Your task to perform on an android device: Show the shopping cart on target. Search for "lg ultragear" on target, select the first entry, add it to the cart, then select checkout. Image 0: 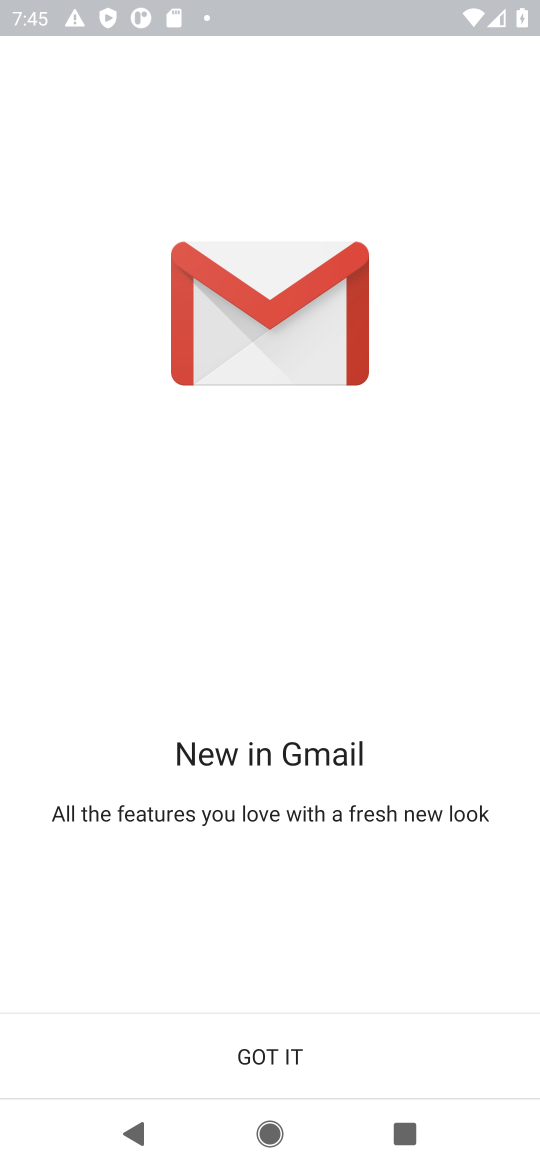
Step 0: click (257, 1053)
Your task to perform on an android device: Show the shopping cart on target. Search for "lg ultragear" on target, select the first entry, add it to the cart, then select checkout. Image 1: 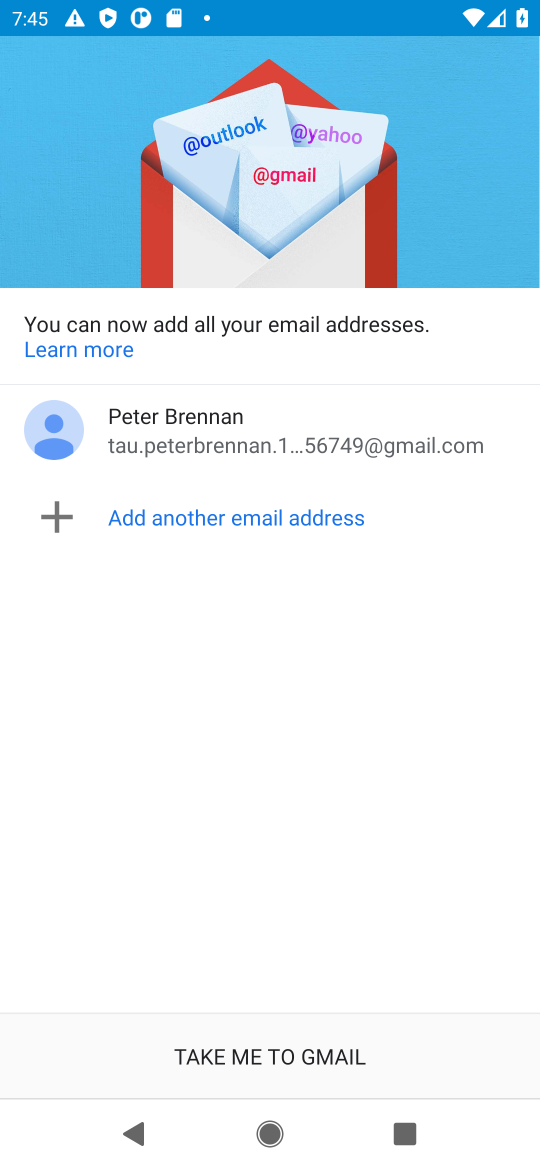
Step 1: press home button
Your task to perform on an android device: Show the shopping cart on target. Search for "lg ultragear" on target, select the first entry, add it to the cart, then select checkout. Image 2: 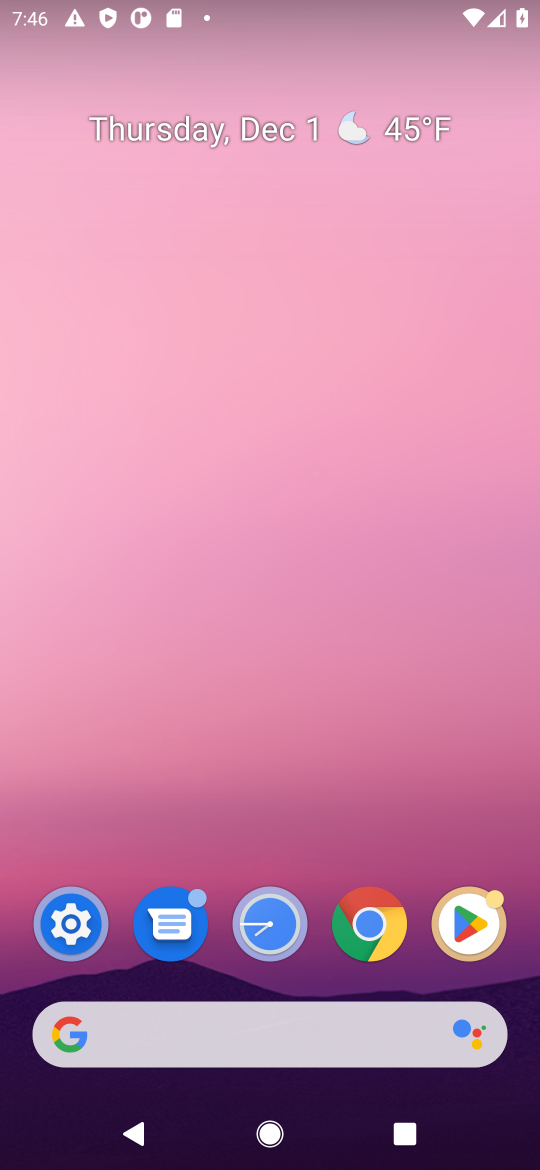
Step 2: click (257, 1023)
Your task to perform on an android device: Show the shopping cart on target. Search for "lg ultragear" on target, select the first entry, add it to the cart, then select checkout. Image 3: 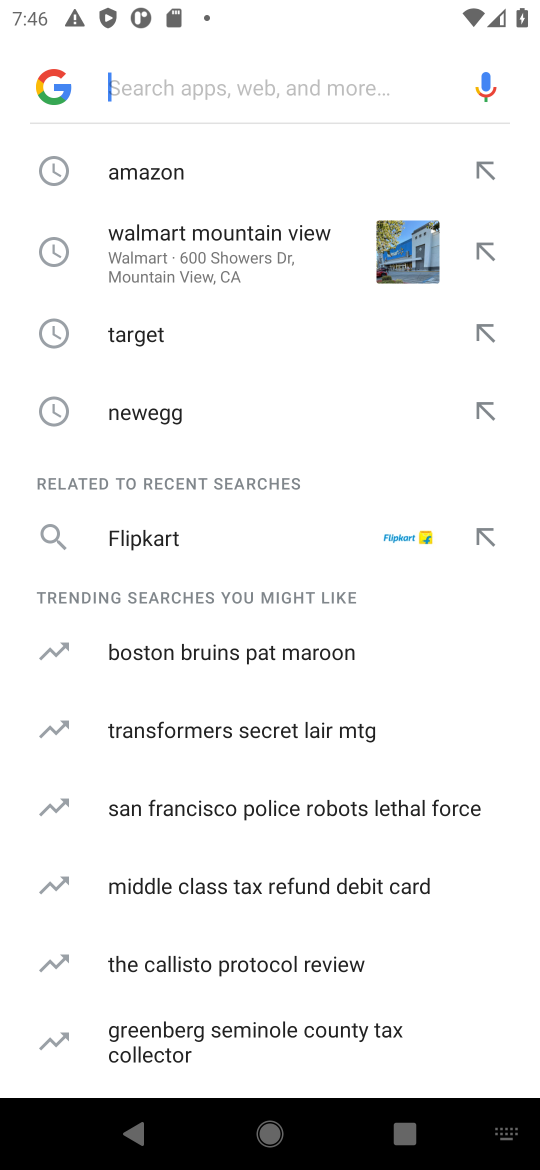
Step 3: type "target"
Your task to perform on an android device: Show the shopping cart on target. Search for "lg ultragear" on target, select the first entry, add it to the cart, then select checkout. Image 4: 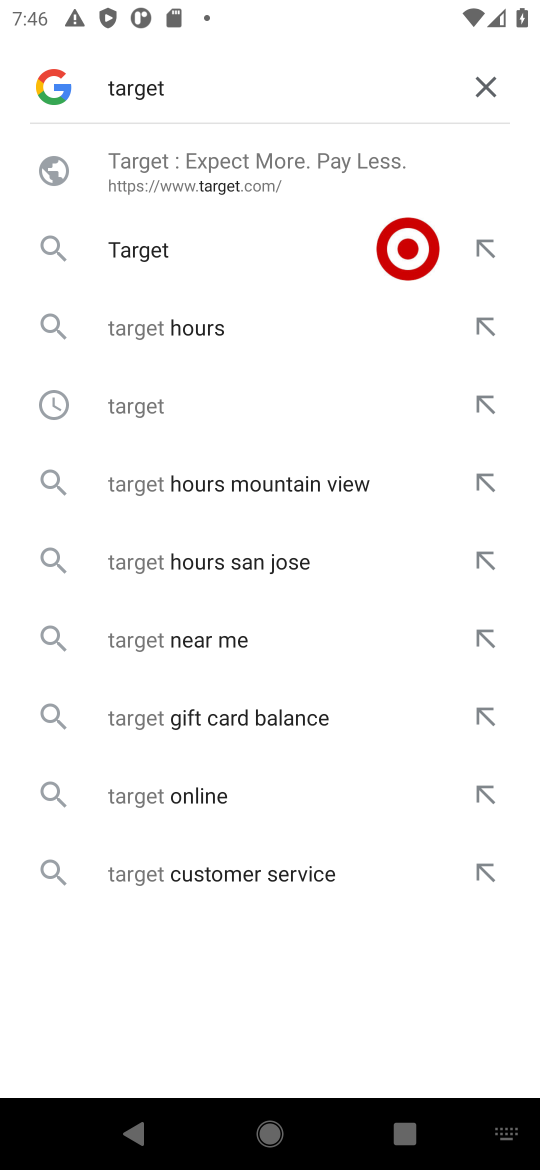
Step 4: click (136, 237)
Your task to perform on an android device: Show the shopping cart on target. Search for "lg ultragear" on target, select the first entry, add it to the cart, then select checkout. Image 5: 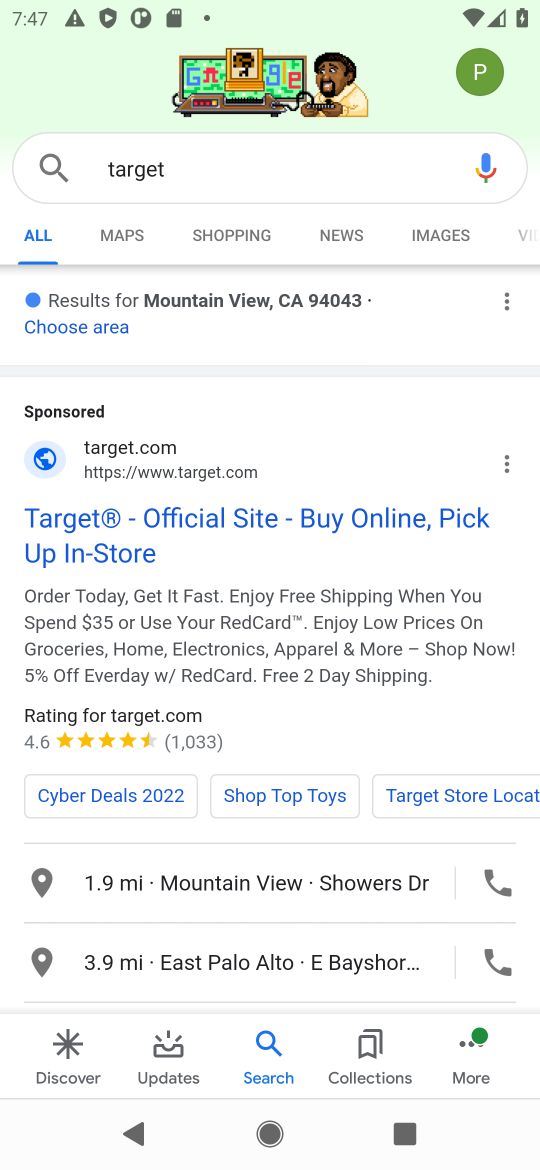
Step 5: click (195, 552)
Your task to perform on an android device: Show the shopping cart on target. Search for "lg ultragear" on target, select the first entry, add it to the cart, then select checkout. Image 6: 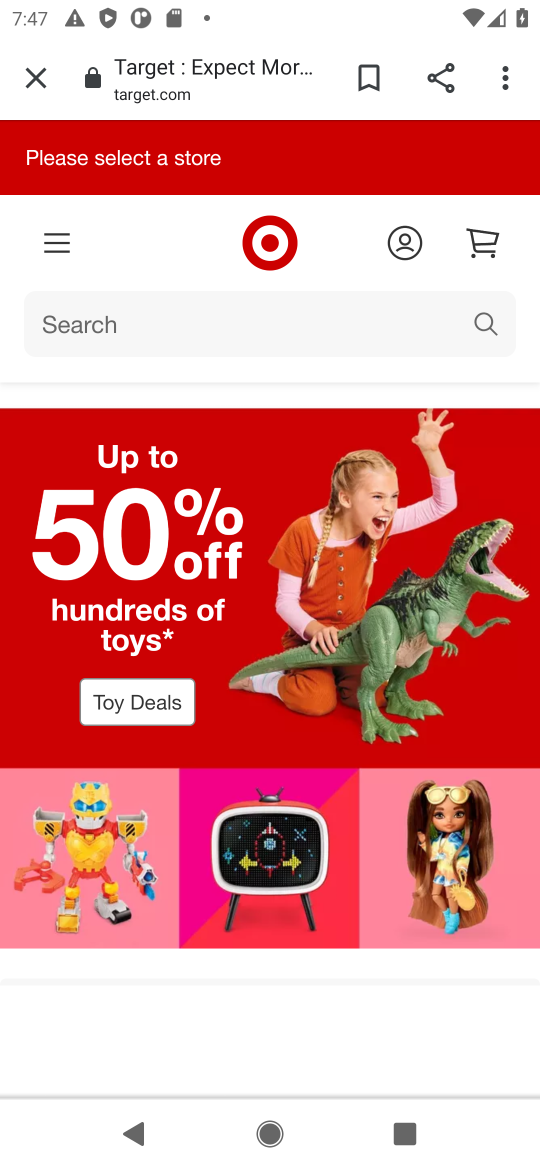
Step 6: click (145, 339)
Your task to perform on an android device: Show the shopping cart on target. Search for "lg ultragear" on target, select the first entry, add it to the cart, then select checkout. Image 7: 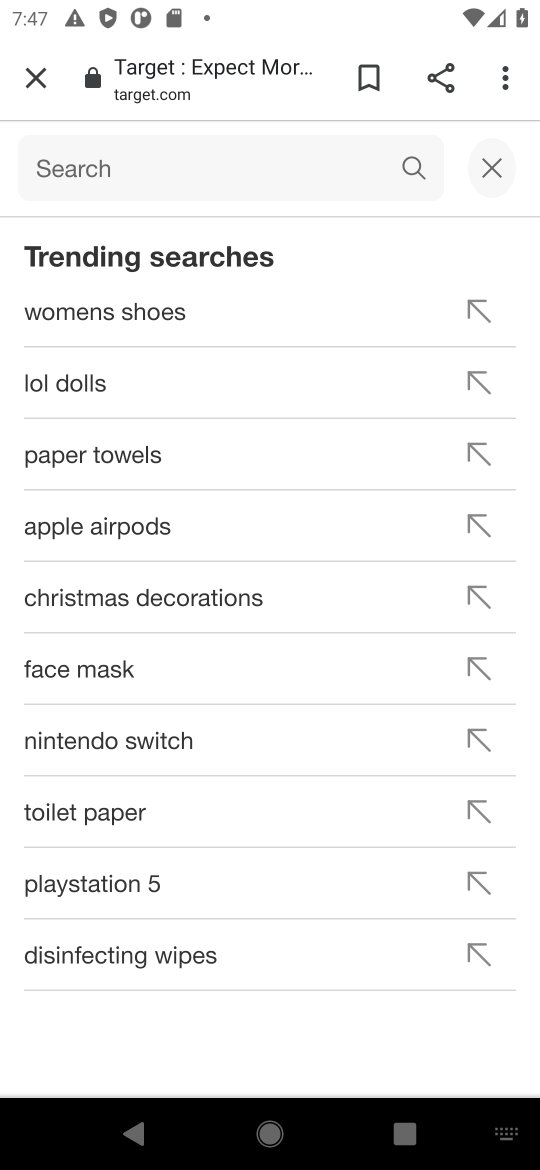
Step 7: type "lg ultragear"
Your task to perform on an android device: Show the shopping cart on target. Search for "lg ultragear" on target, select the first entry, add it to the cart, then select checkout. Image 8: 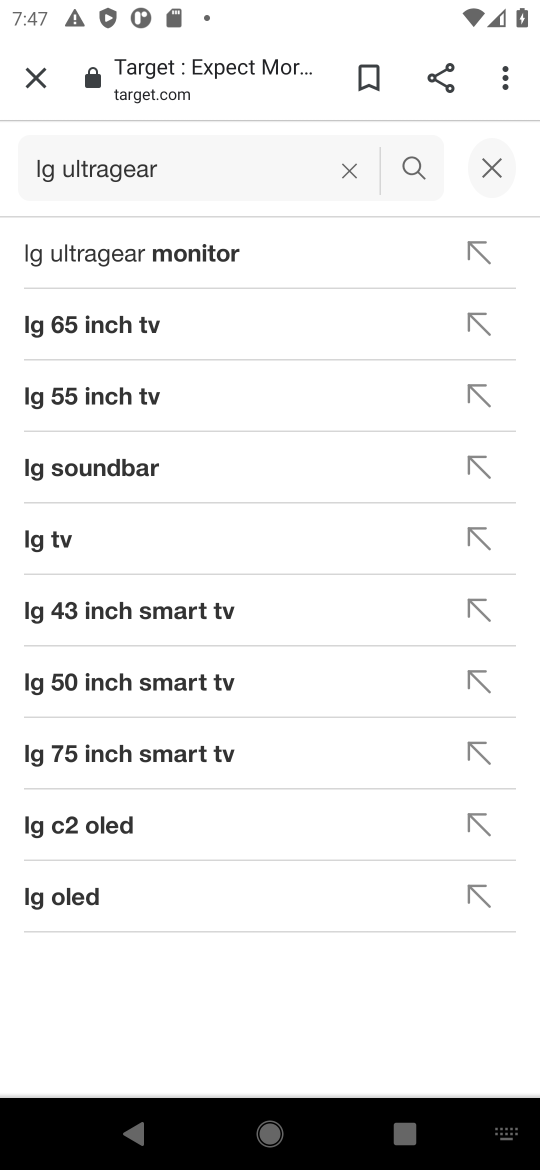
Step 8: click (120, 270)
Your task to perform on an android device: Show the shopping cart on target. Search for "lg ultragear" on target, select the first entry, add it to the cart, then select checkout. Image 9: 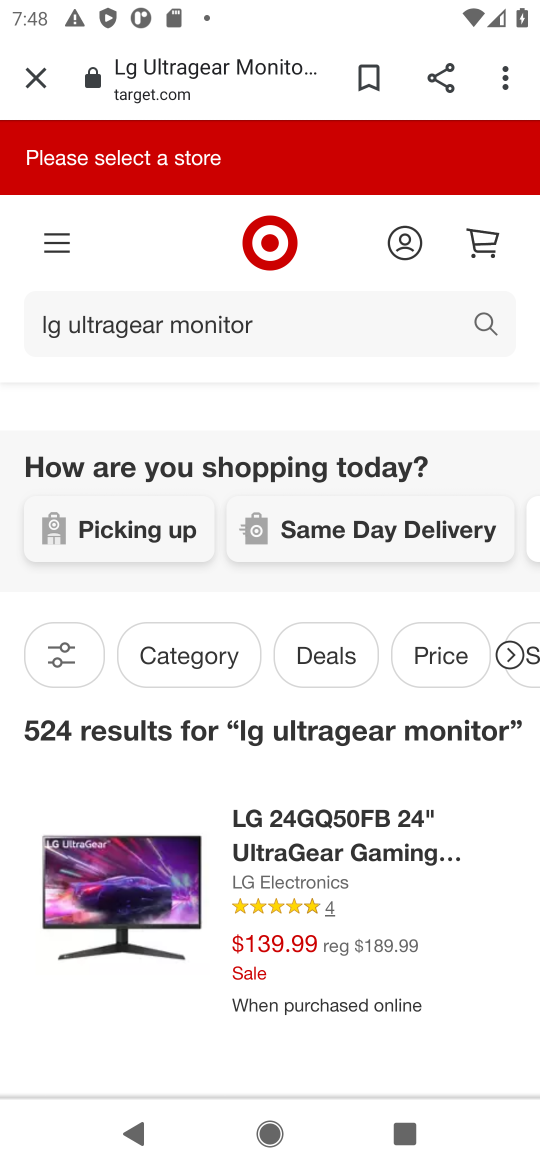
Step 9: click (269, 827)
Your task to perform on an android device: Show the shopping cart on target. Search for "lg ultragear" on target, select the first entry, add it to the cart, then select checkout. Image 10: 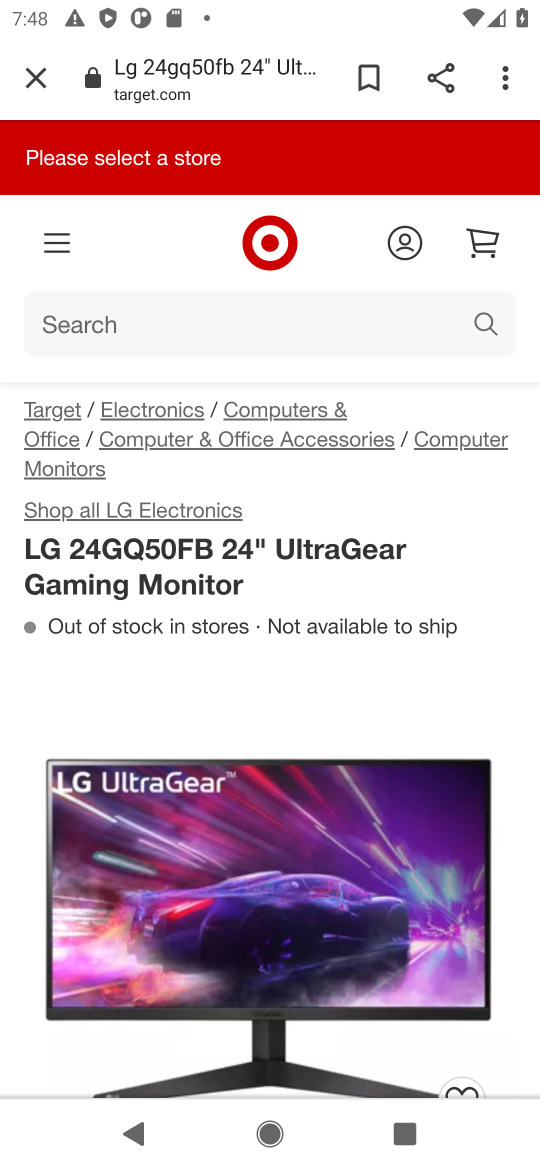
Step 10: drag from (136, 937) to (162, 267)
Your task to perform on an android device: Show the shopping cart on target. Search for "lg ultragear" on target, select the first entry, add it to the cart, then select checkout. Image 11: 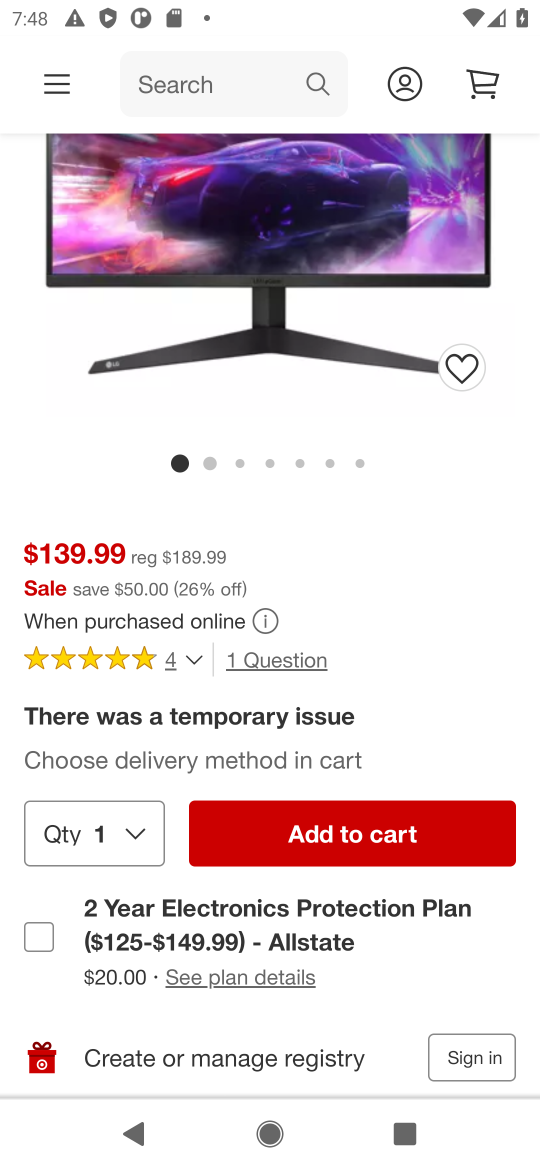
Step 11: click (255, 818)
Your task to perform on an android device: Show the shopping cart on target. Search for "lg ultragear" on target, select the first entry, add it to the cart, then select checkout. Image 12: 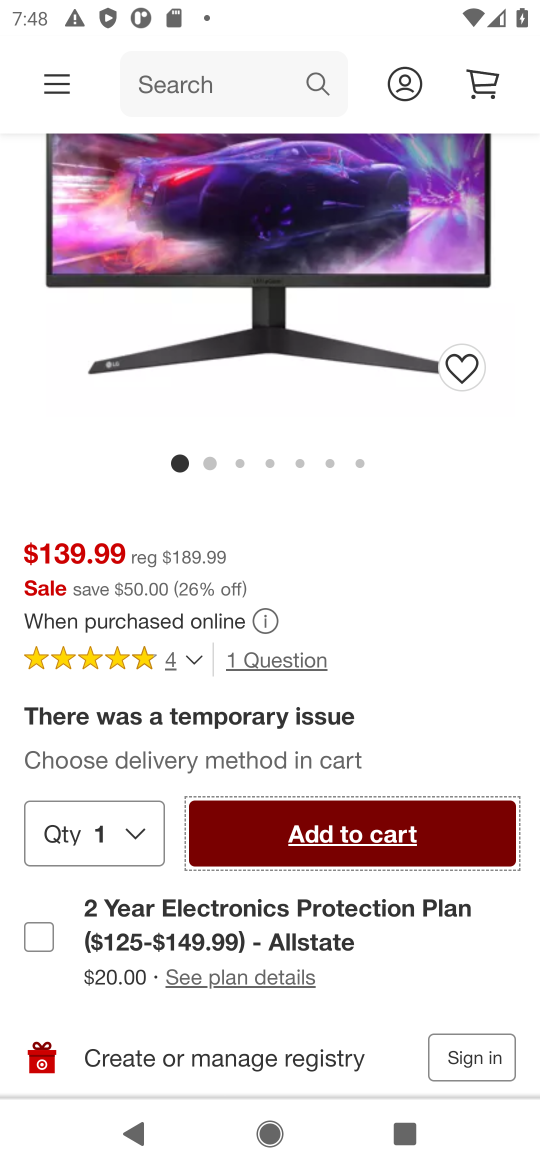
Step 12: task complete